Your task to perform on an android device: open device folders in google photos Image 0: 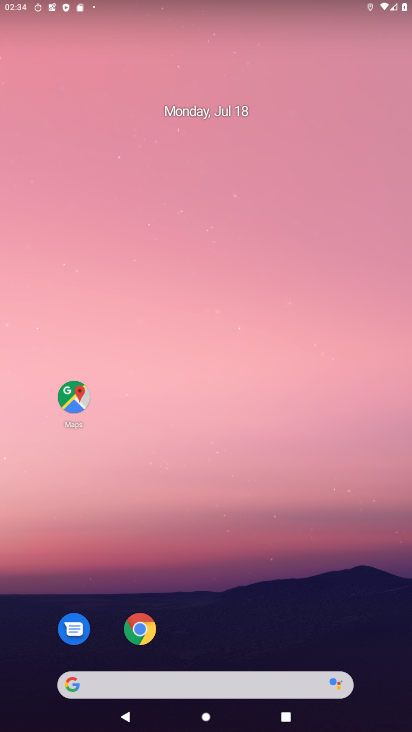
Step 0: drag from (204, 653) to (211, 23)
Your task to perform on an android device: open device folders in google photos Image 1: 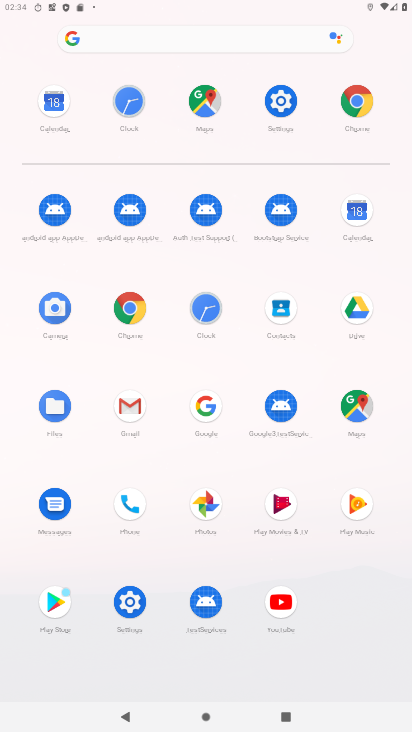
Step 1: click (202, 499)
Your task to perform on an android device: open device folders in google photos Image 2: 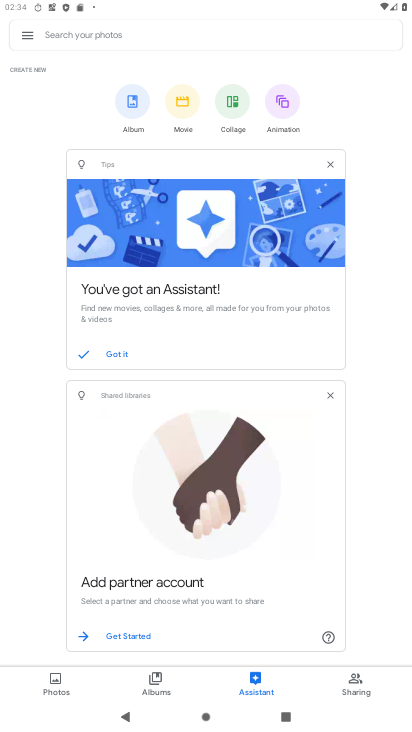
Step 2: click (27, 30)
Your task to perform on an android device: open device folders in google photos Image 3: 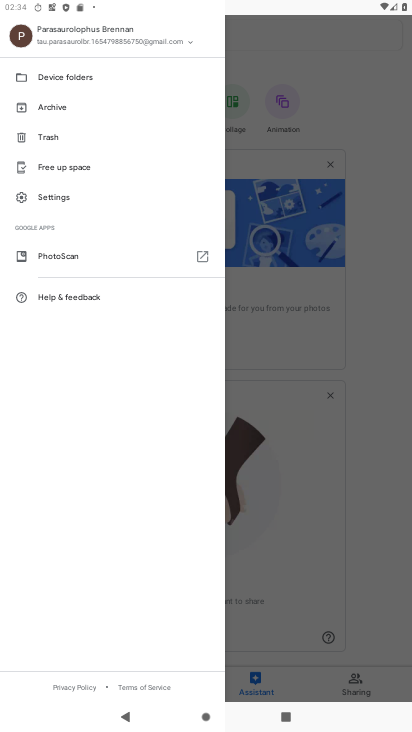
Step 3: click (78, 76)
Your task to perform on an android device: open device folders in google photos Image 4: 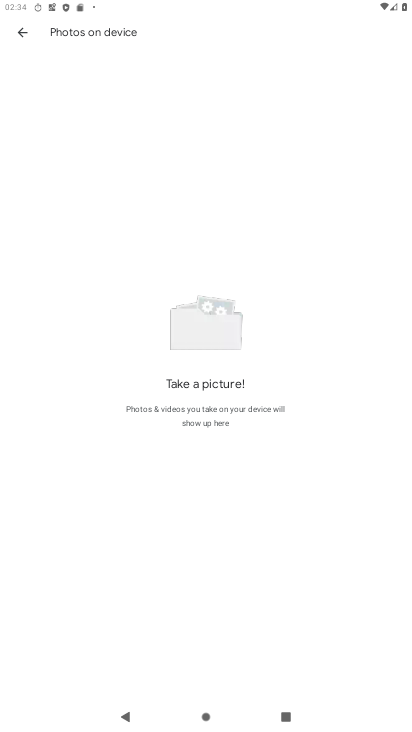
Step 4: task complete